Your task to perform on an android device: uninstall "ColorNote Notepad Notes" Image 0: 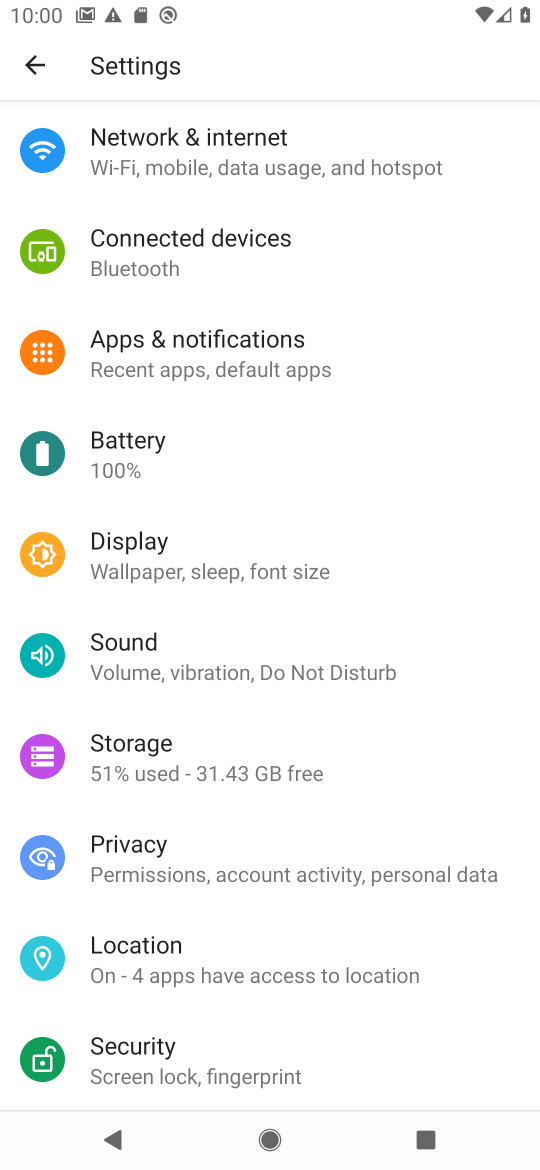
Step 0: press back button
Your task to perform on an android device: uninstall "ColorNote Notepad Notes" Image 1: 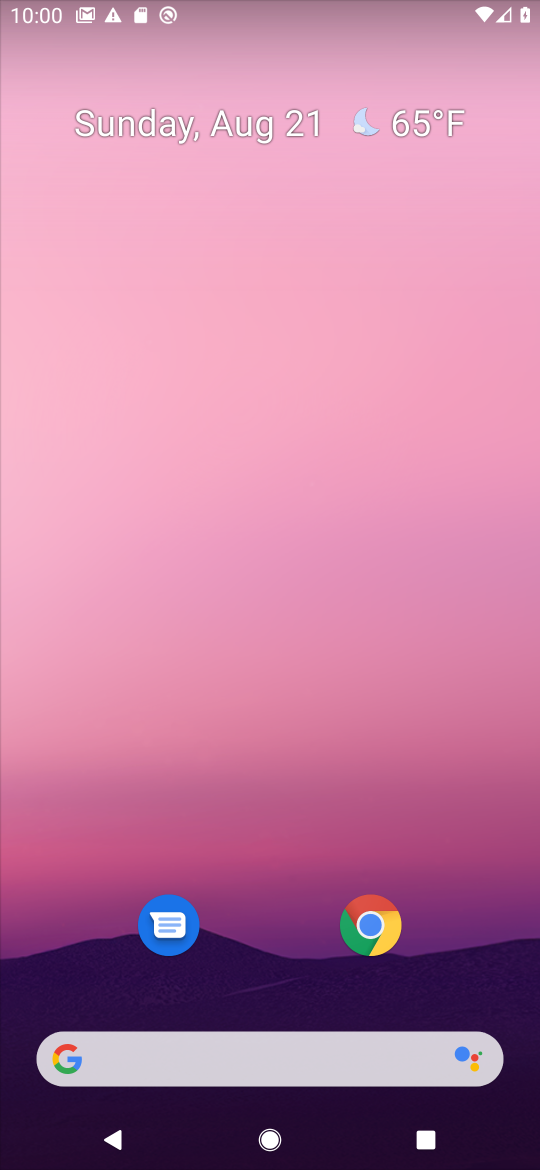
Step 1: drag from (312, 960) to (406, 157)
Your task to perform on an android device: uninstall "ColorNote Notepad Notes" Image 2: 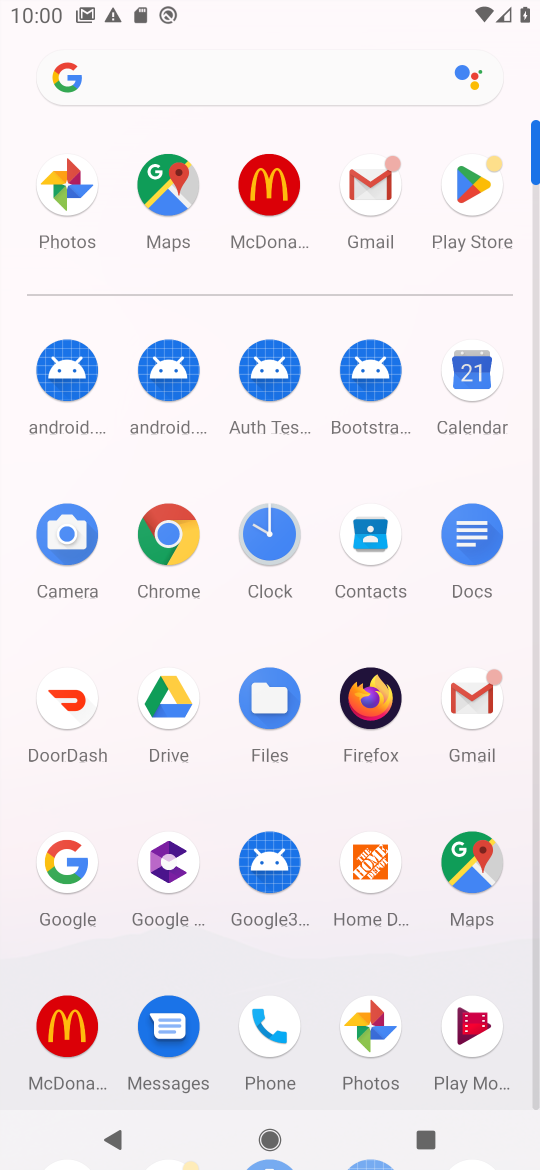
Step 2: click (468, 216)
Your task to perform on an android device: uninstall "ColorNote Notepad Notes" Image 3: 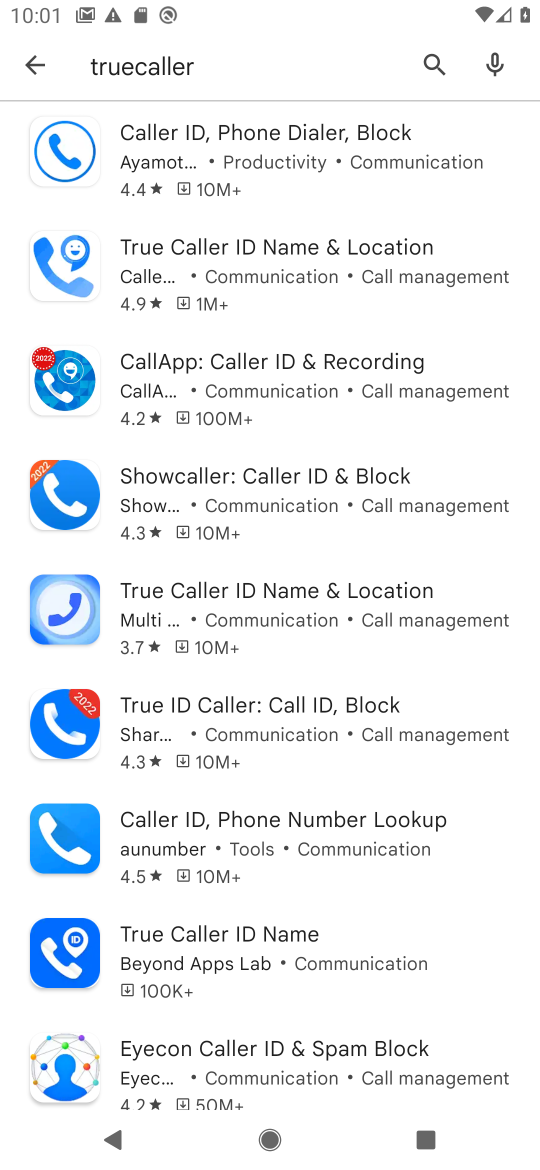
Step 3: click (437, 64)
Your task to perform on an android device: uninstall "ColorNote Notepad Notes" Image 4: 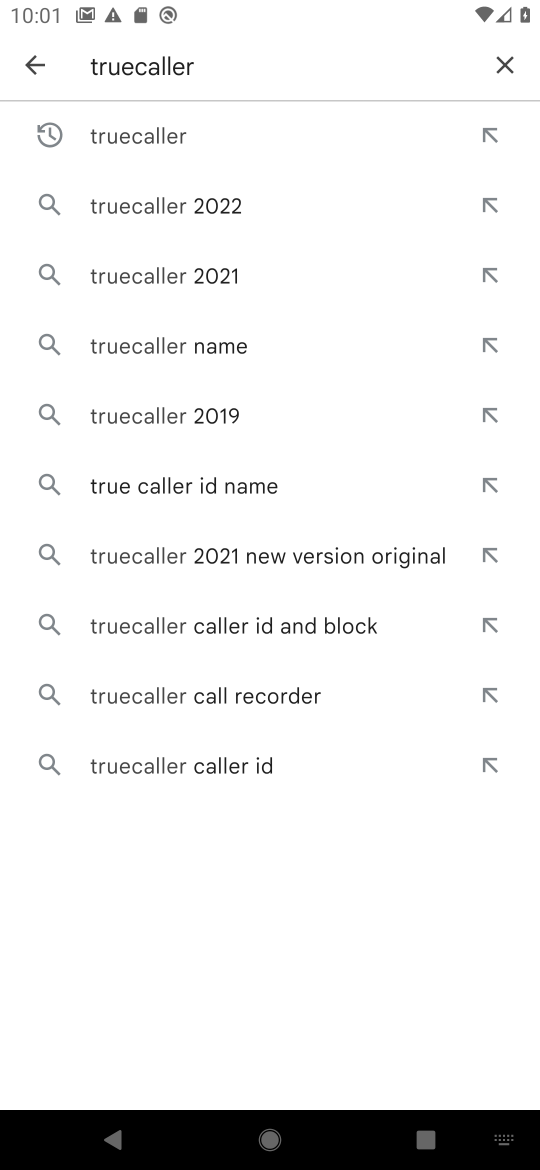
Step 4: click (495, 63)
Your task to perform on an android device: uninstall "ColorNote Notepad Notes" Image 5: 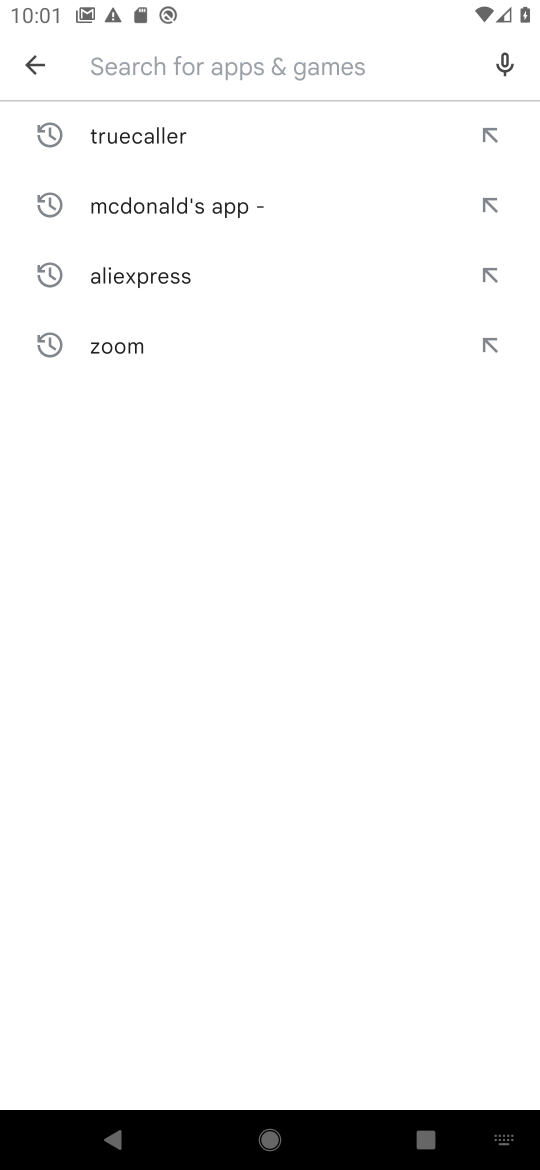
Step 5: click (136, 69)
Your task to perform on an android device: uninstall "ColorNote Notepad Notes" Image 6: 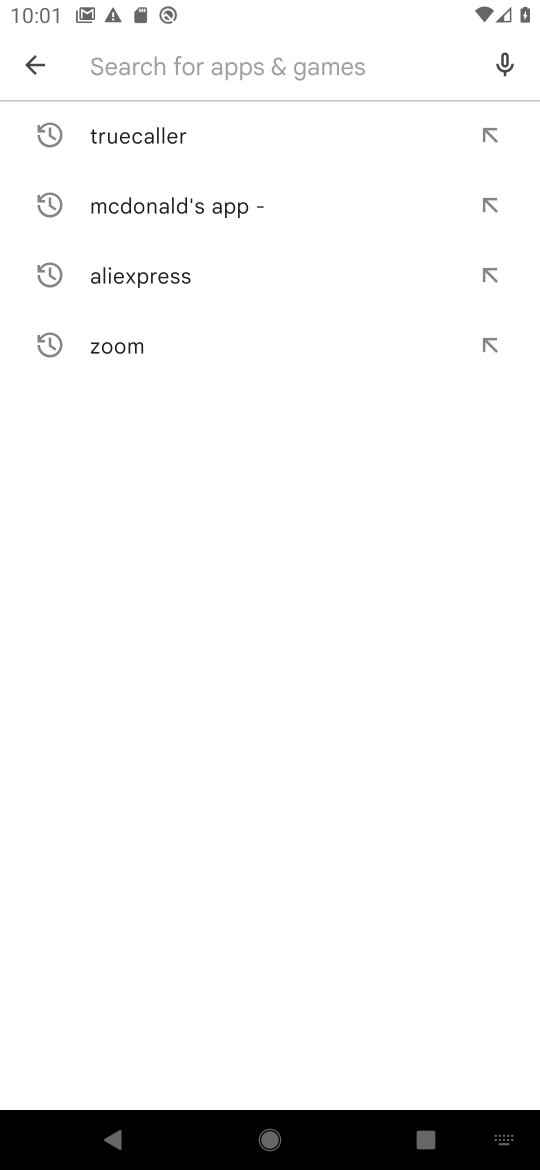
Step 6: click (272, 71)
Your task to perform on an android device: uninstall "ColorNote Notepad Notes" Image 7: 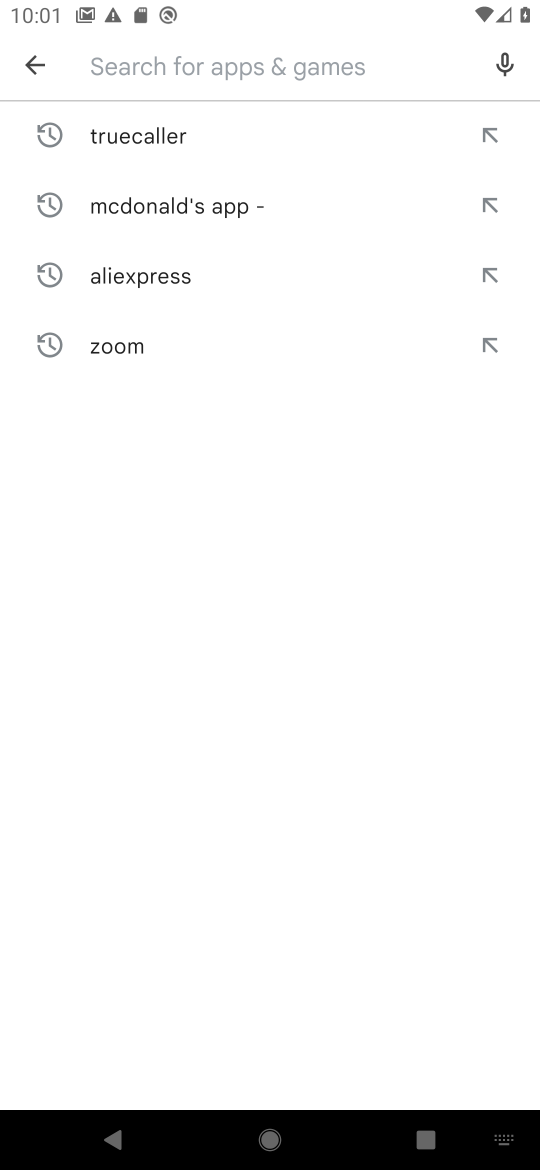
Step 7: type "ColorNote Notepad Notes"
Your task to perform on an android device: uninstall "ColorNote Notepad Notes" Image 8: 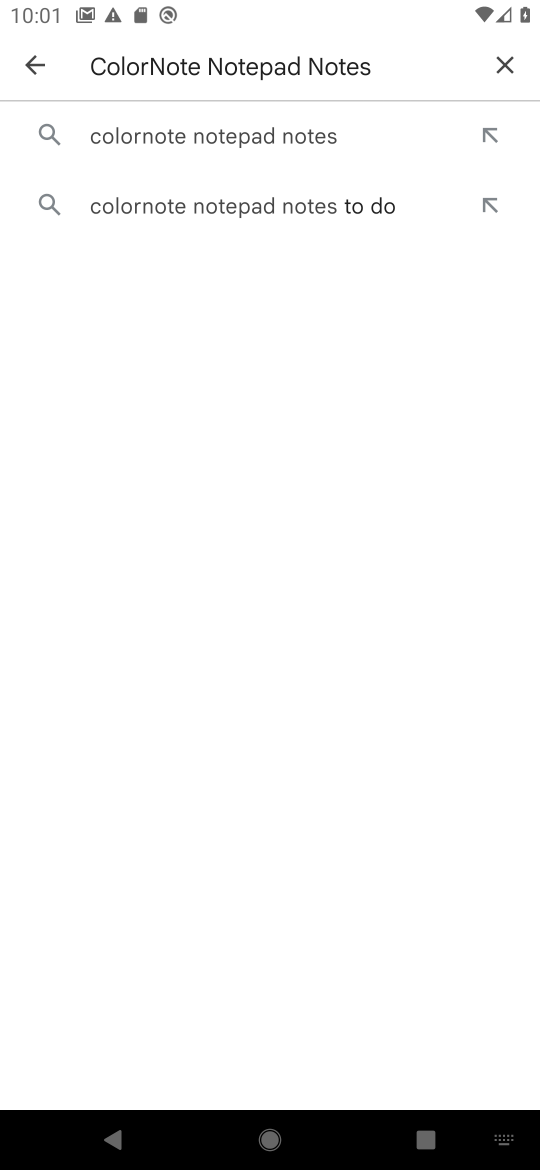
Step 8: click (241, 117)
Your task to perform on an android device: uninstall "ColorNote Notepad Notes" Image 9: 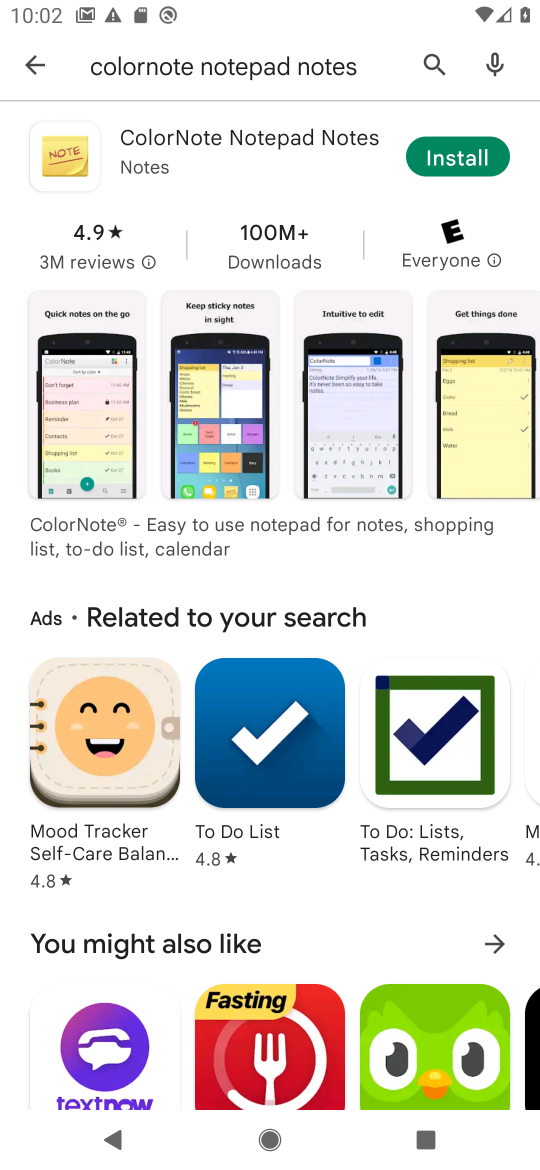
Step 9: click (214, 166)
Your task to perform on an android device: uninstall "ColorNote Notepad Notes" Image 10: 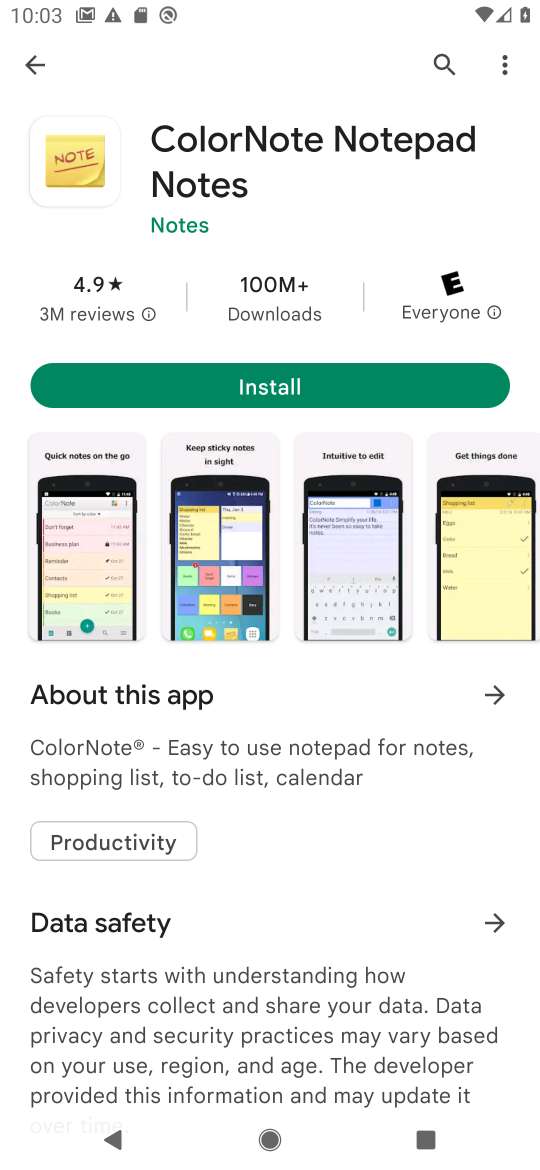
Step 10: task complete